Your task to perform on an android device: delete a single message in the gmail app Image 0: 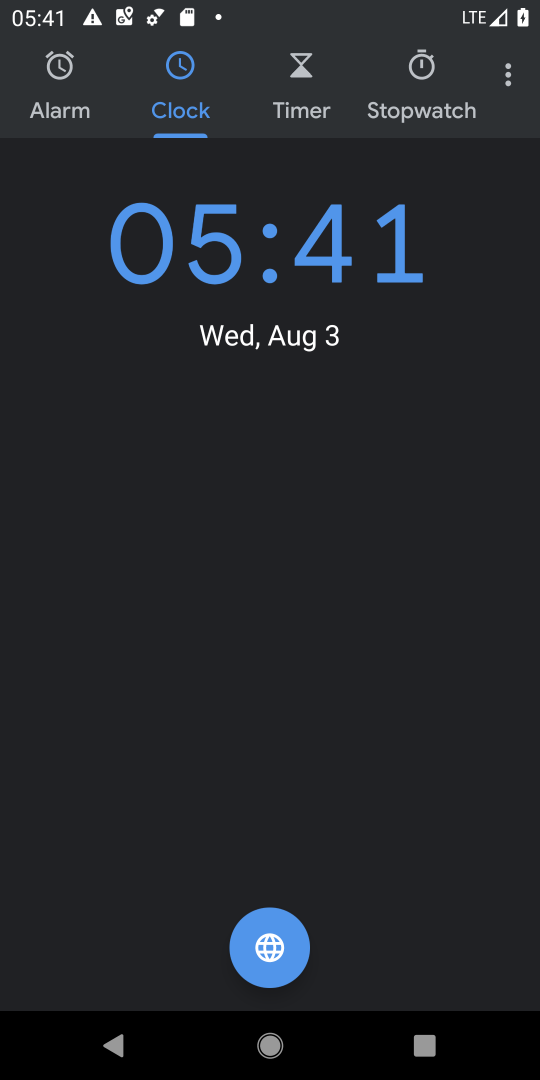
Step 0: press home button
Your task to perform on an android device: delete a single message in the gmail app Image 1: 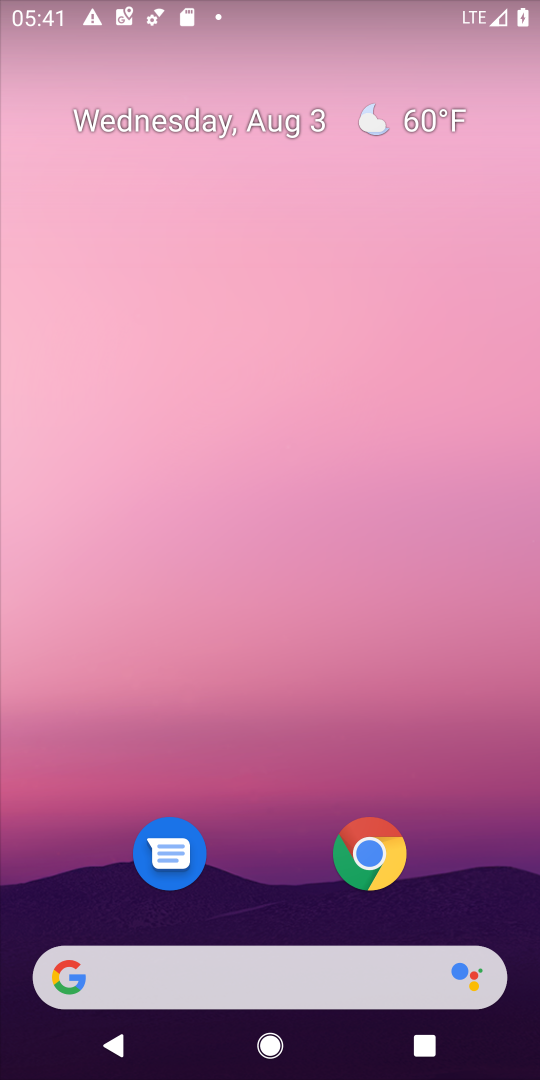
Step 1: drag from (282, 919) to (281, 148)
Your task to perform on an android device: delete a single message in the gmail app Image 2: 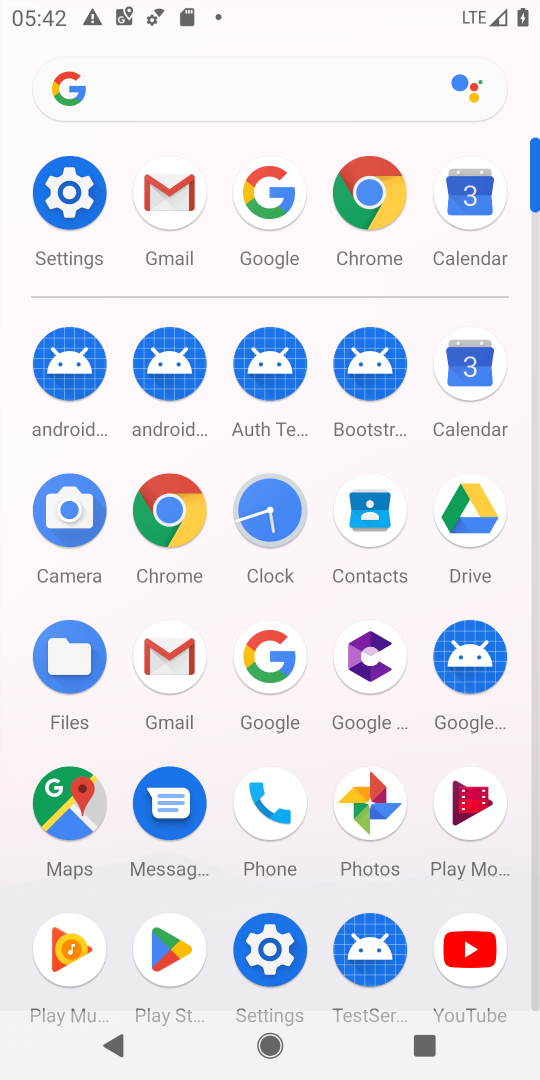
Step 2: click (154, 674)
Your task to perform on an android device: delete a single message in the gmail app Image 3: 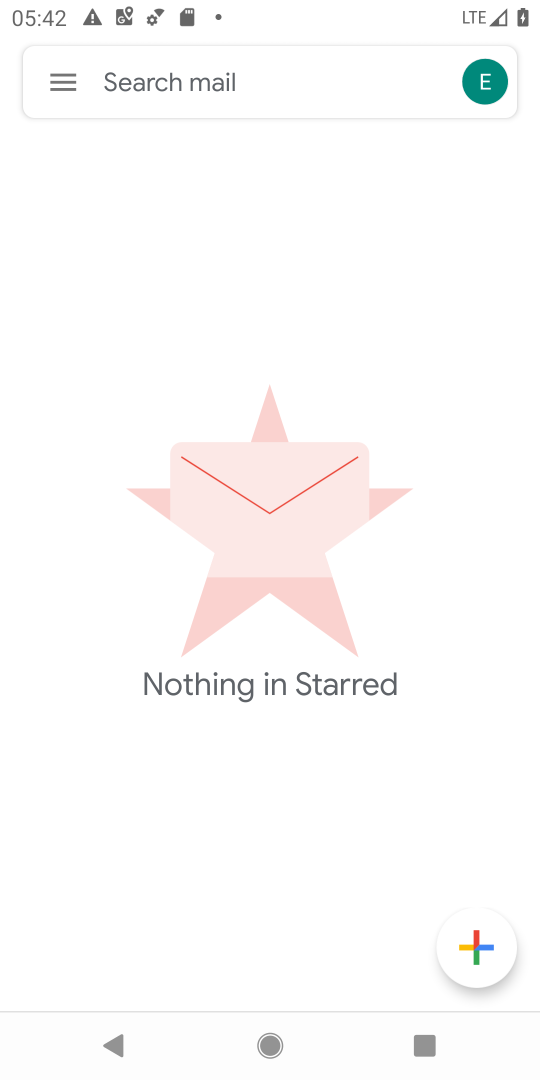
Step 3: task complete